Your task to perform on an android device: What is the news today? Image 0: 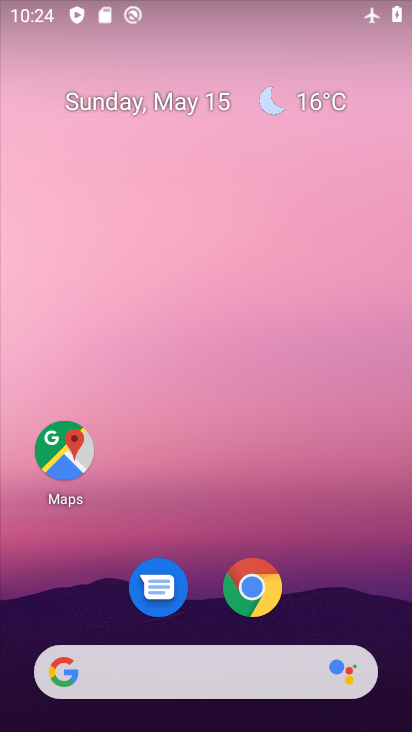
Step 0: drag from (338, 466) to (291, 57)
Your task to perform on an android device: What is the news today? Image 1: 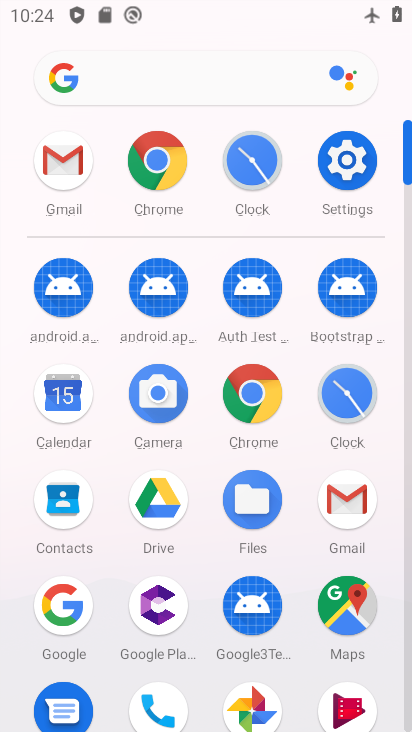
Step 1: drag from (8, 646) to (27, 283)
Your task to perform on an android device: What is the news today? Image 2: 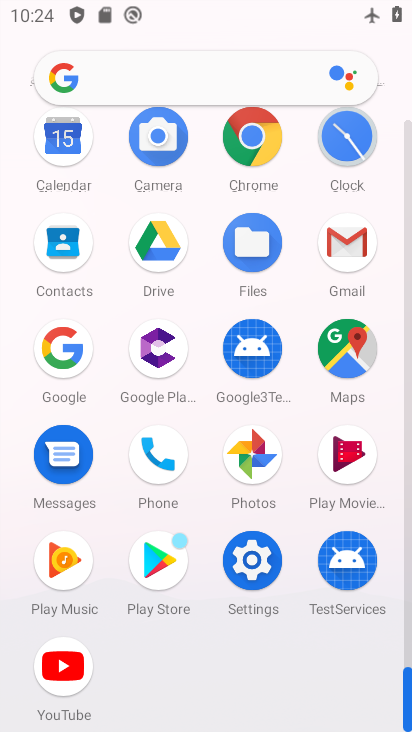
Step 2: click (249, 138)
Your task to perform on an android device: What is the news today? Image 3: 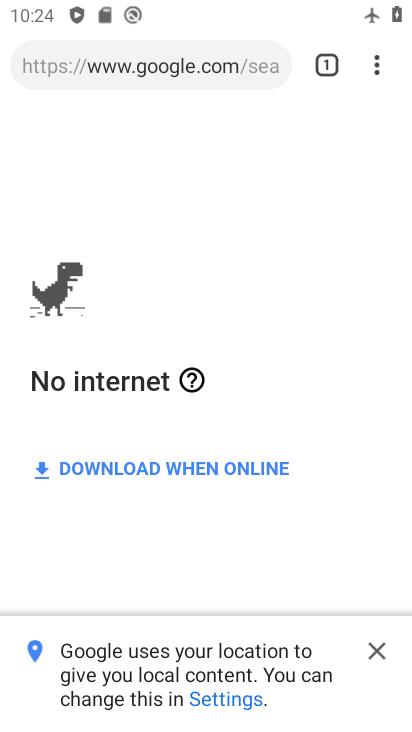
Step 3: click (117, 73)
Your task to perform on an android device: What is the news today? Image 4: 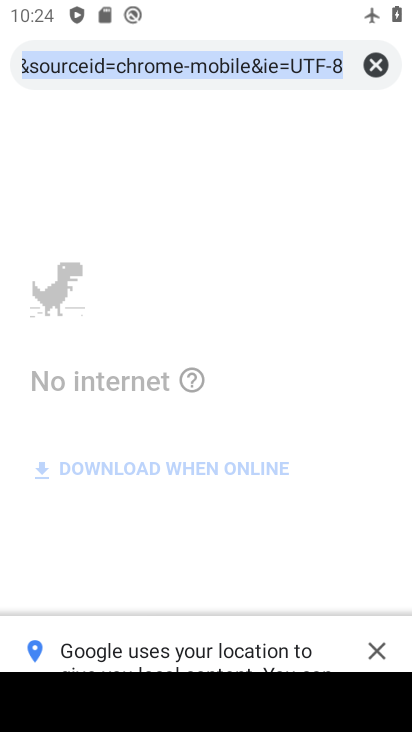
Step 4: click (379, 60)
Your task to perform on an android device: What is the news today? Image 5: 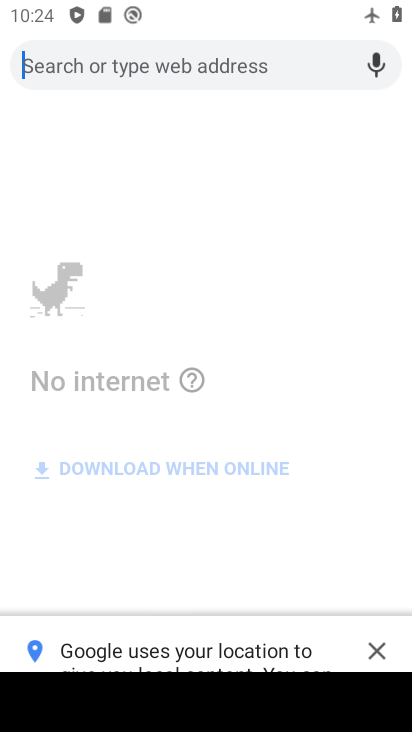
Step 5: type "What is the news today?"
Your task to perform on an android device: What is the news today? Image 6: 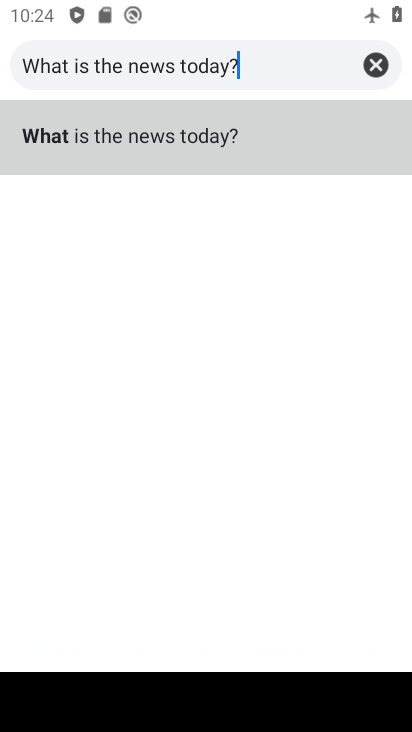
Step 6: type ""
Your task to perform on an android device: What is the news today? Image 7: 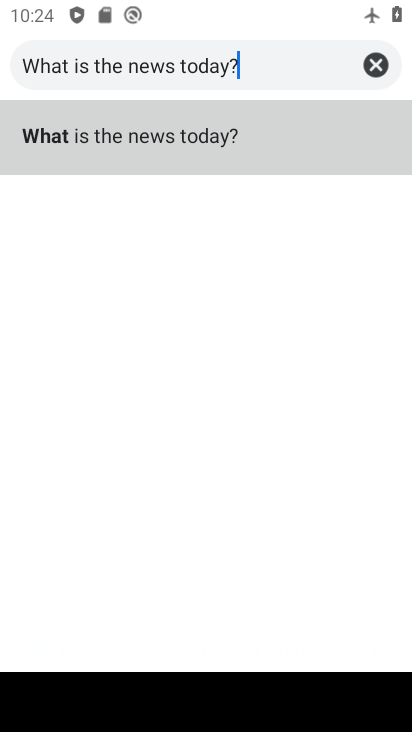
Step 7: click (194, 138)
Your task to perform on an android device: What is the news today? Image 8: 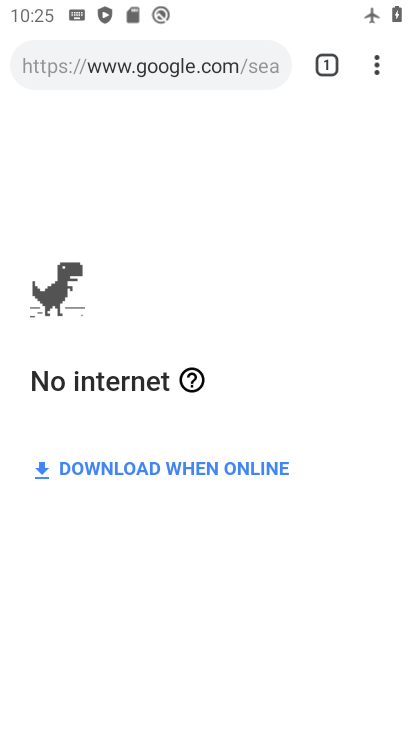
Step 8: task complete